Your task to perform on an android device: Turn on the flashlight Image 0: 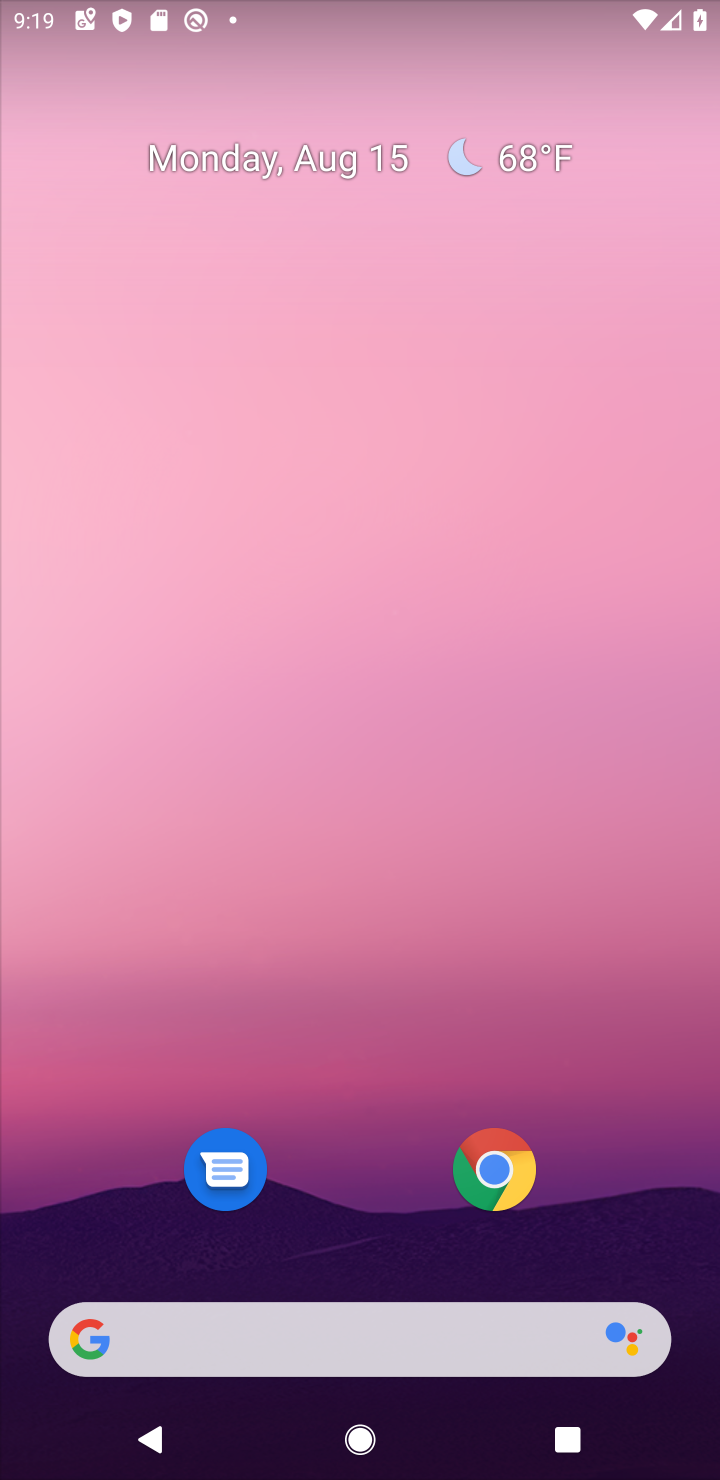
Step 0: drag from (514, 6) to (613, 953)
Your task to perform on an android device: Turn on the flashlight Image 1: 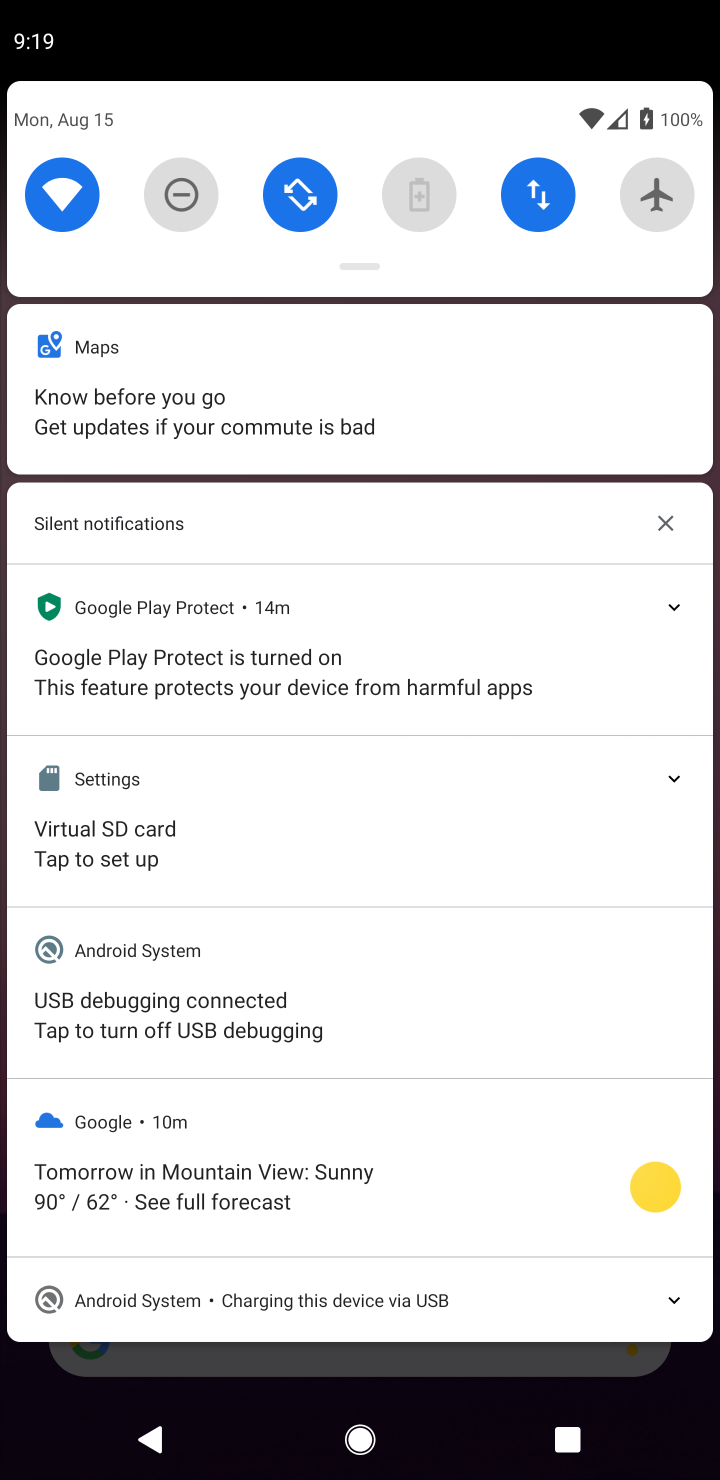
Step 1: task complete